Your task to perform on an android device: Go to internet settings Image 0: 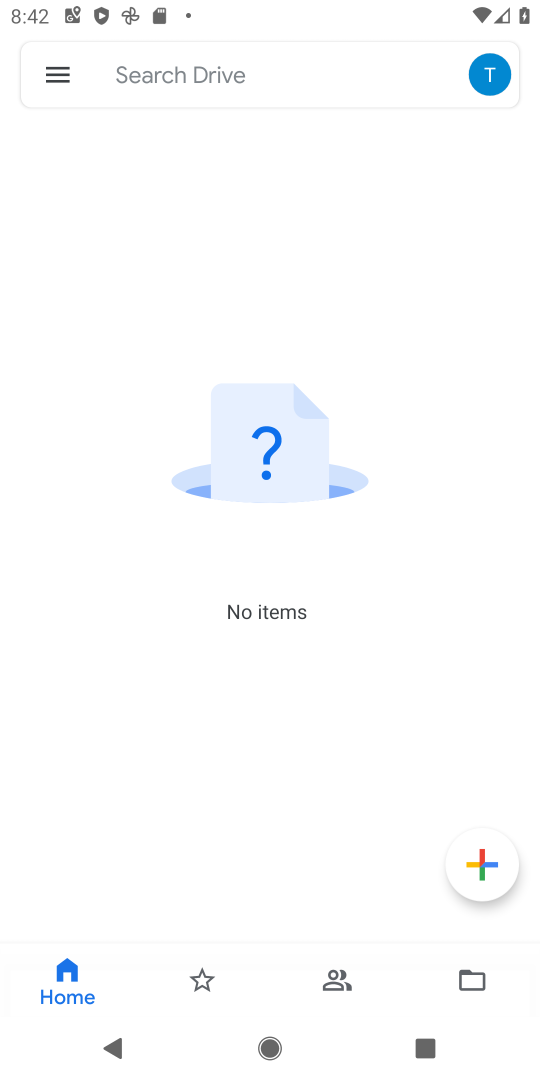
Step 0: press home button
Your task to perform on an android device: Go to internet settings Image 1: 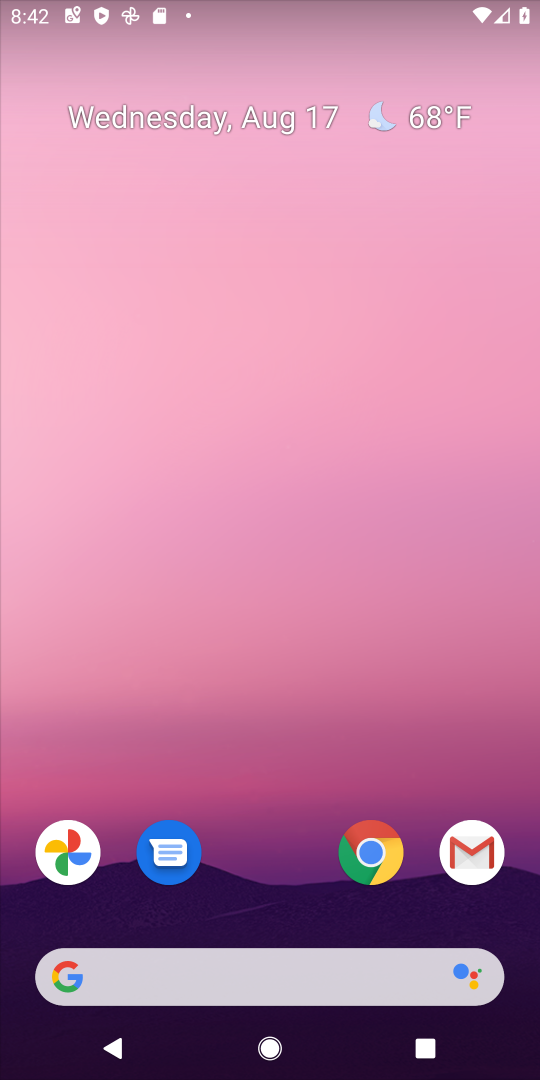
Step 1: drag from (296, 916) to (235, 161)
Your task to perform on an android device: Go to internet settings Image 2: 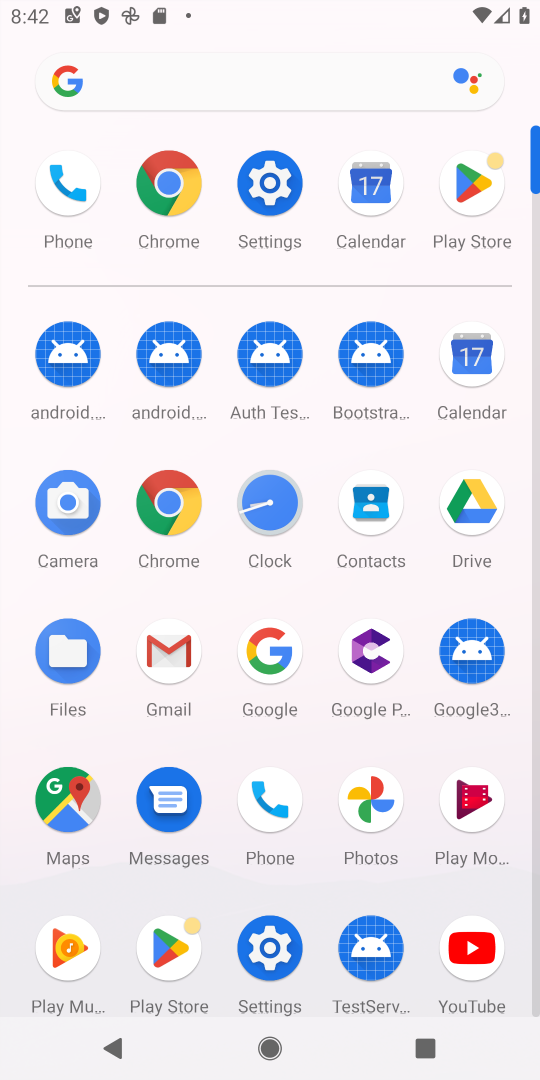
Step 2: click (271, 184)
Your task to perform on an android device: Go to internet settings Image 3: 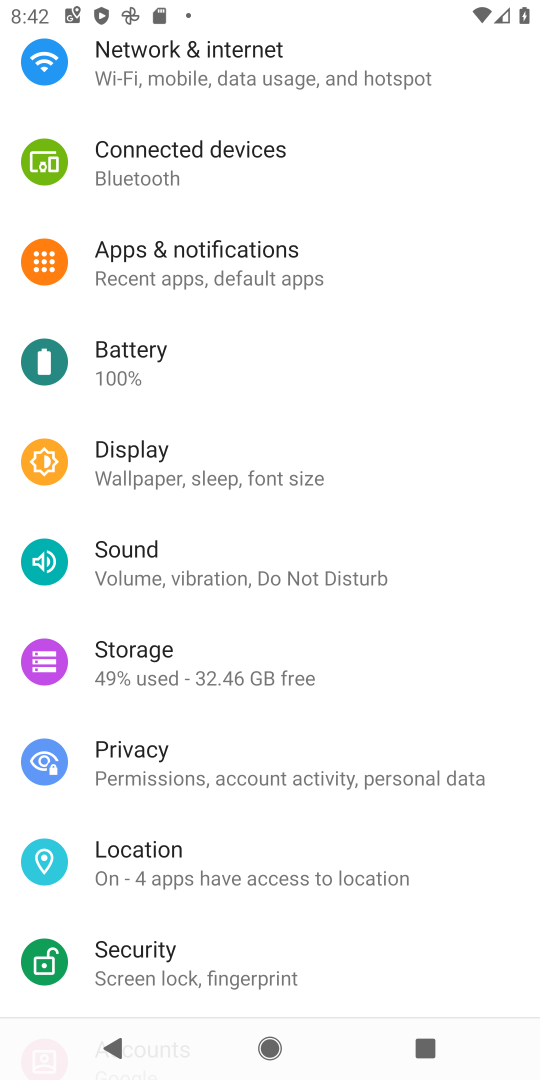
Step 3: click (197, 55)
Your task to perform on an android device: Go to internet settings Image 4: 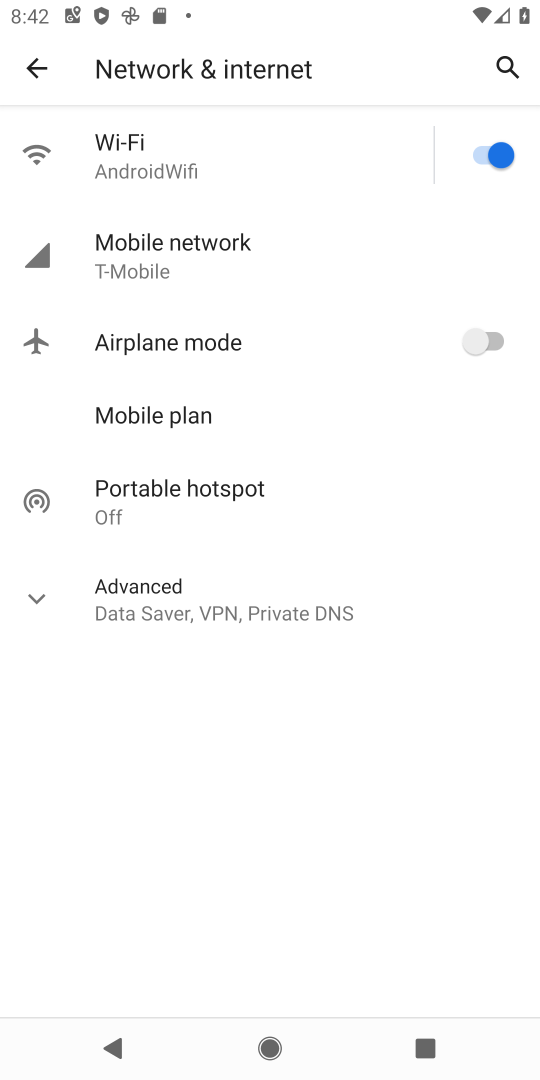
Step 4: task complete